Your task to perform on an android device: uninstall "NewsBreak: Local News & Alerts" Image 0: 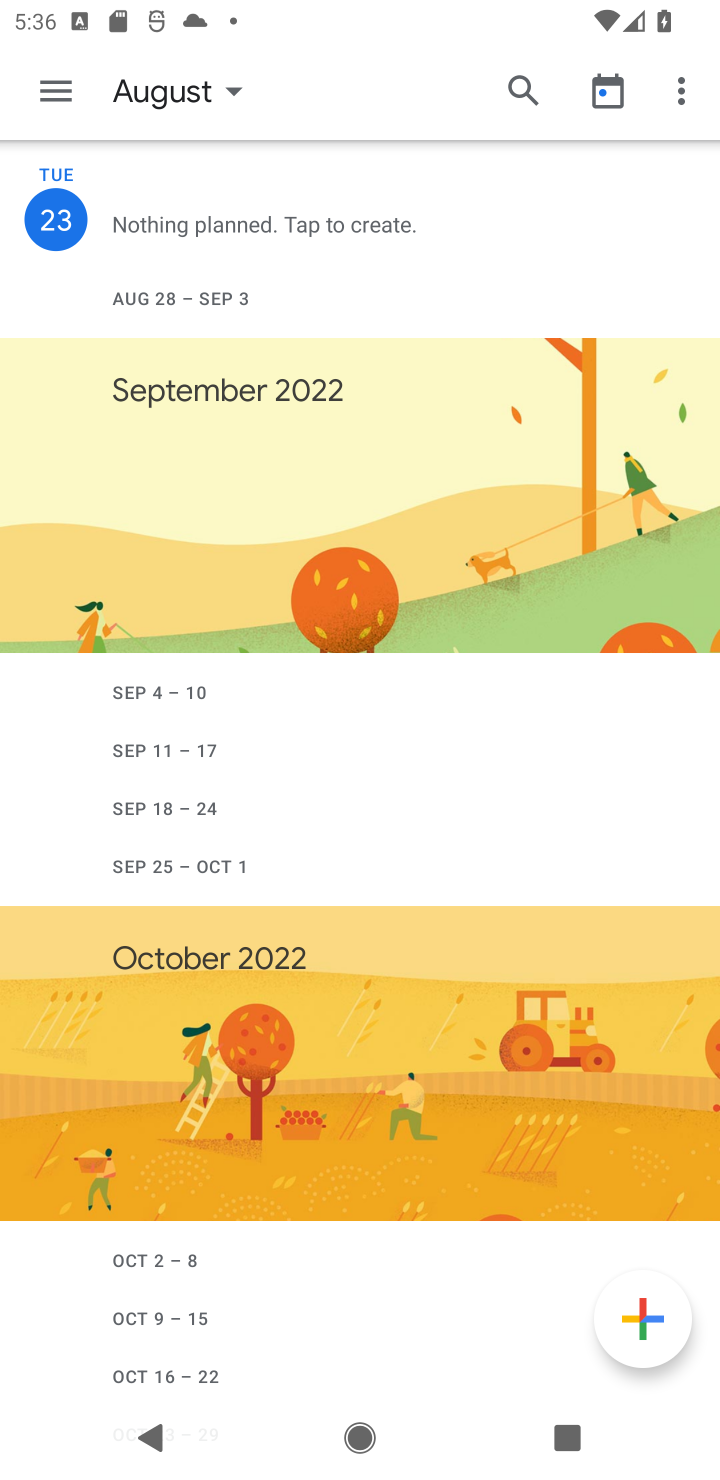
Step 0: press home button
Your task to perform on an android device: uninstall "NewsBreak: Local News & Alerts" Image 1: 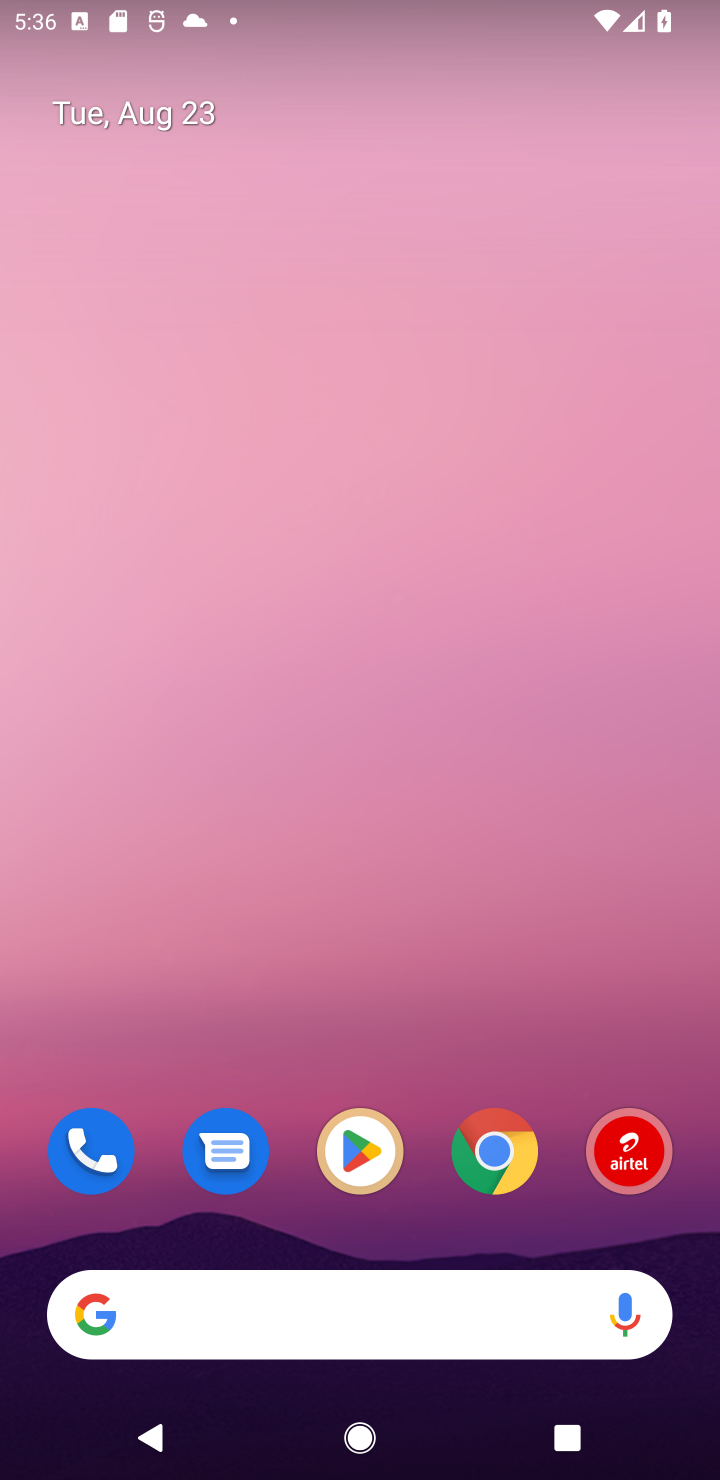
Step 1: click (363, 1147)
Your task to perform on an android device: uninstall "NewsBreak: Local News & Alerts" Image 2: 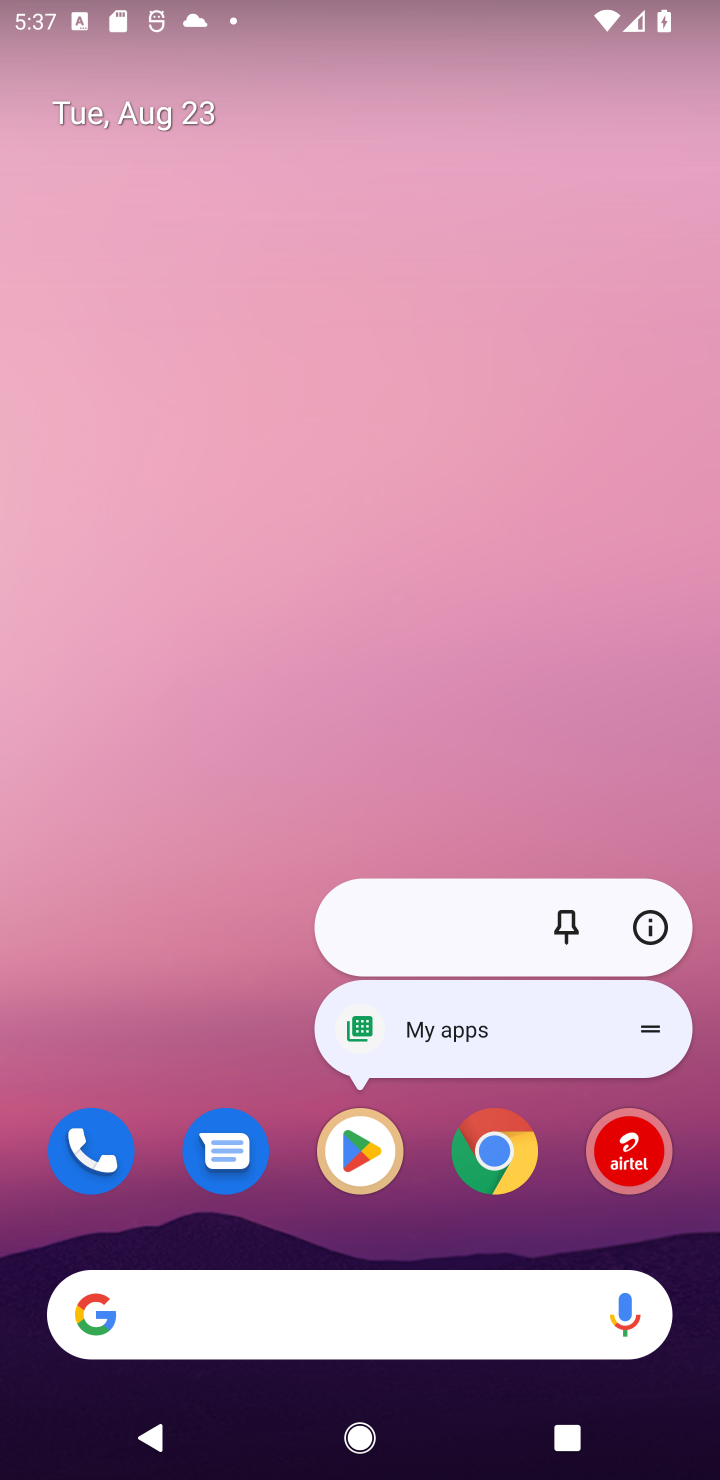
Step 2: click (363, 1154)
Your task to perform on an android device: uninstall "NewsBreak: Local News & Alerts" Image 3: 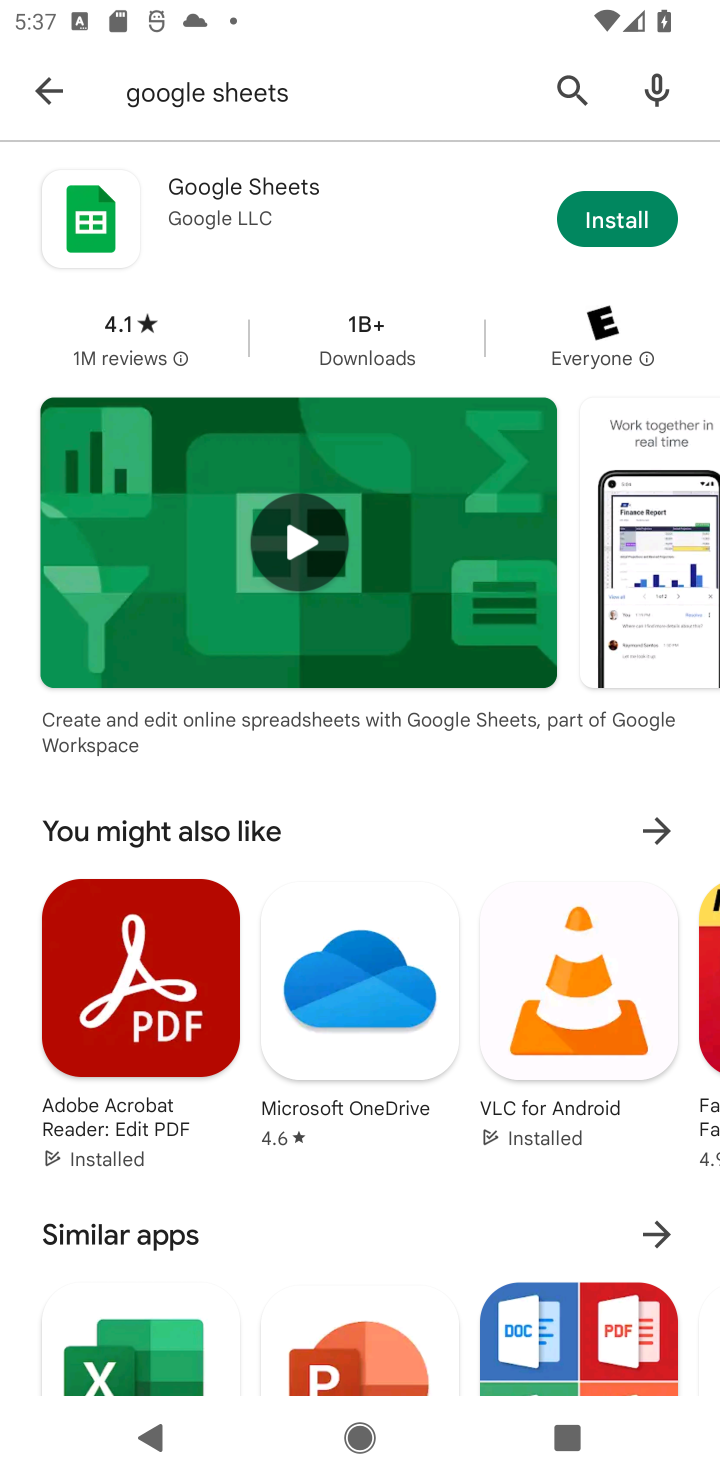
Step 3: click (567, 83)
Your task to perform on an android device: uninstall "NewsBreak: Local News & Alerts" Image 4: 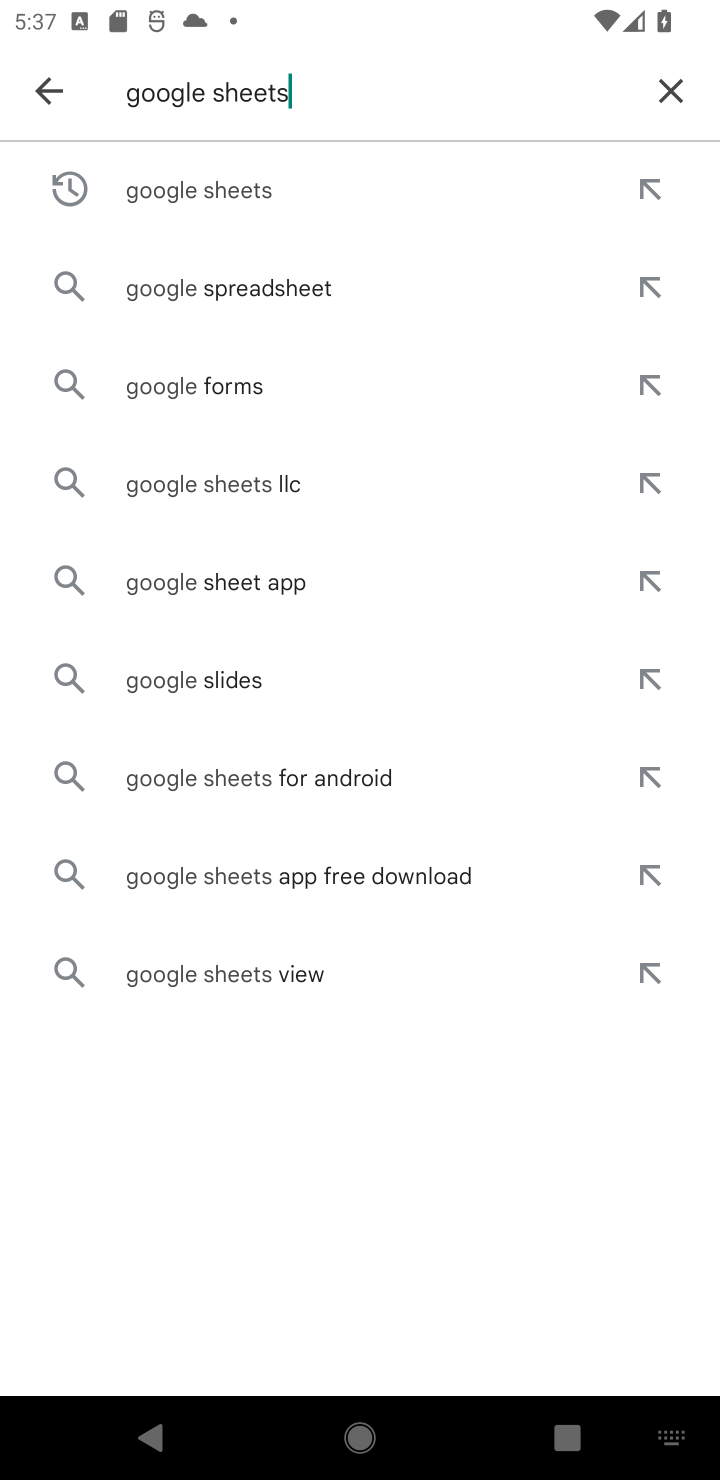
Step 4: click (678, 81)
Your task to perform on an android device: uninstall "NewsBreak: Local News & Alerts" Image 5: 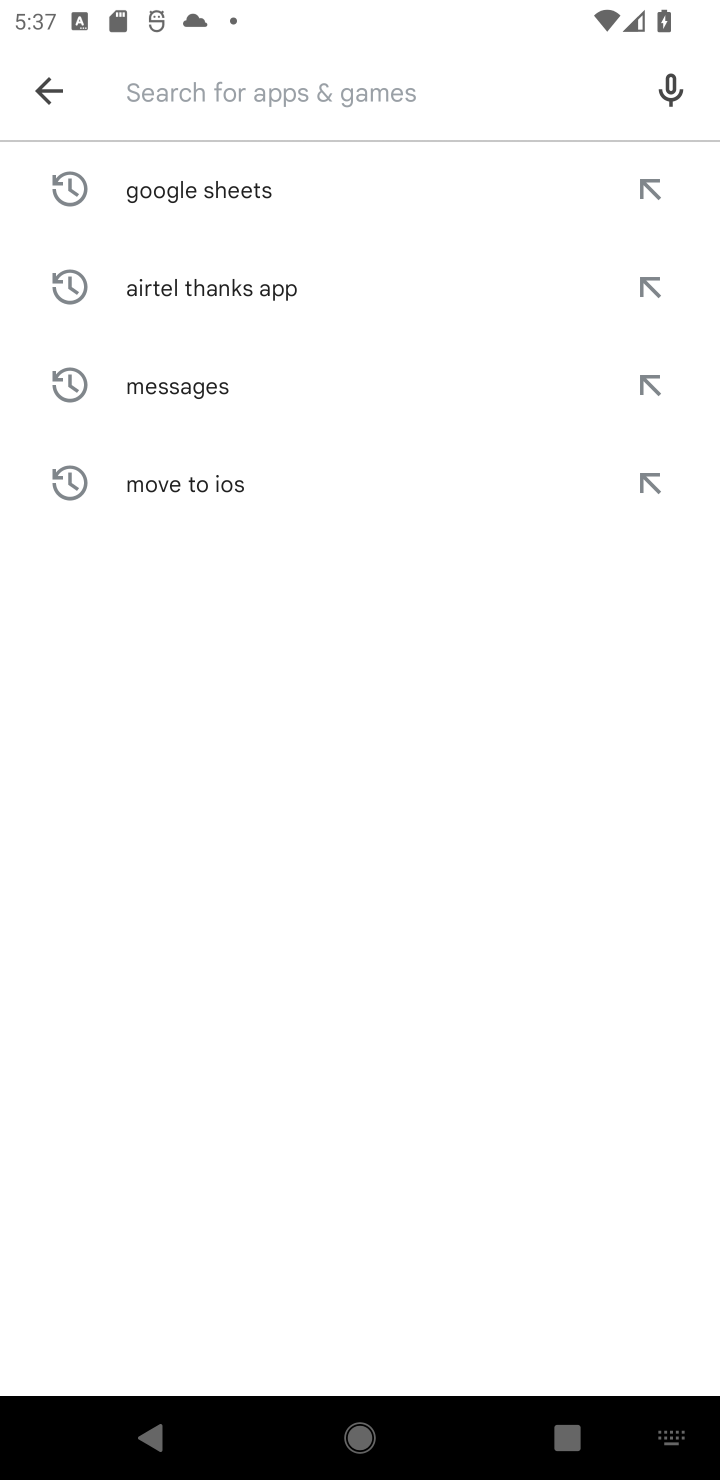
Step 5: type "NewsBreak: Local News & Alerts"
Your task to perform on an android device: uninstall "NewsBreak: Local News & Alerts" Image 6: 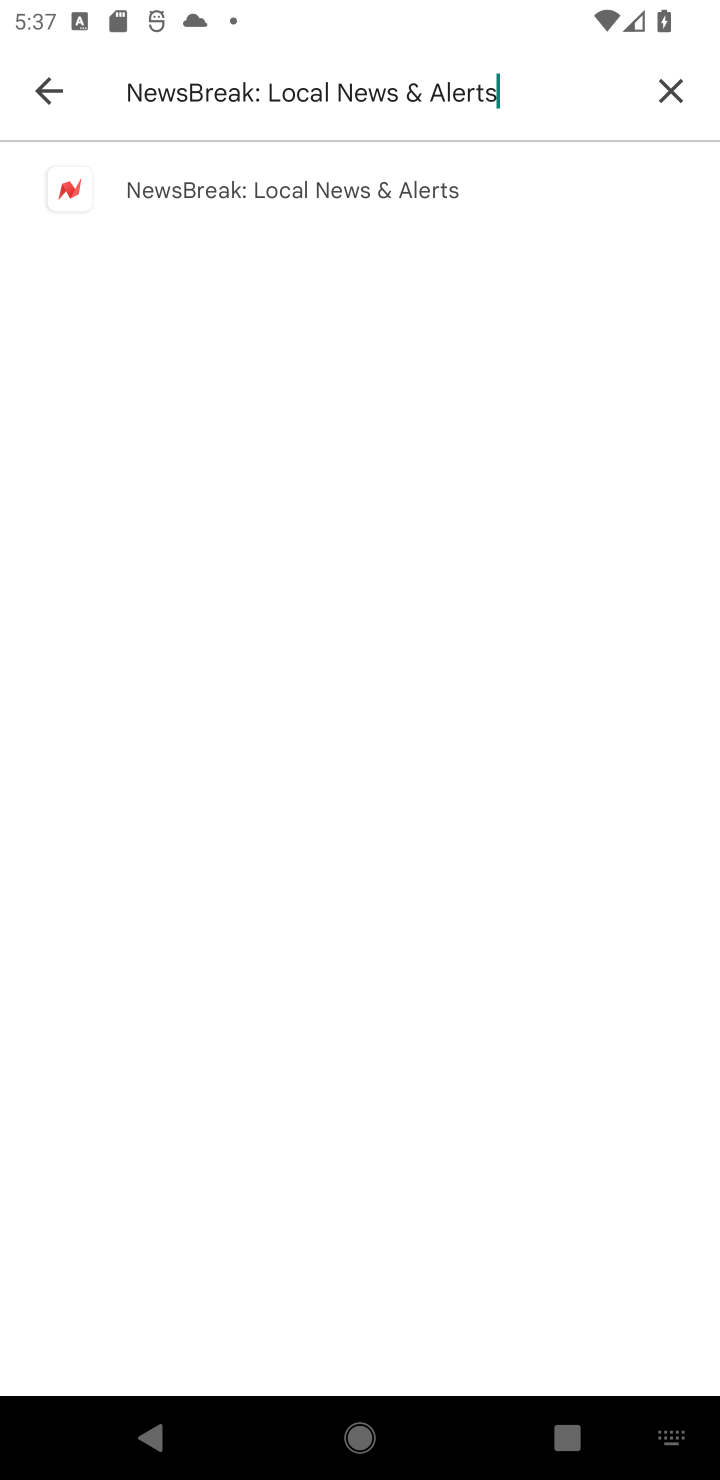
Step 6: click (423, 193)
Your task to perform on an android device: uninstall "NewsBreak: Local News & Alerts" Image 7: 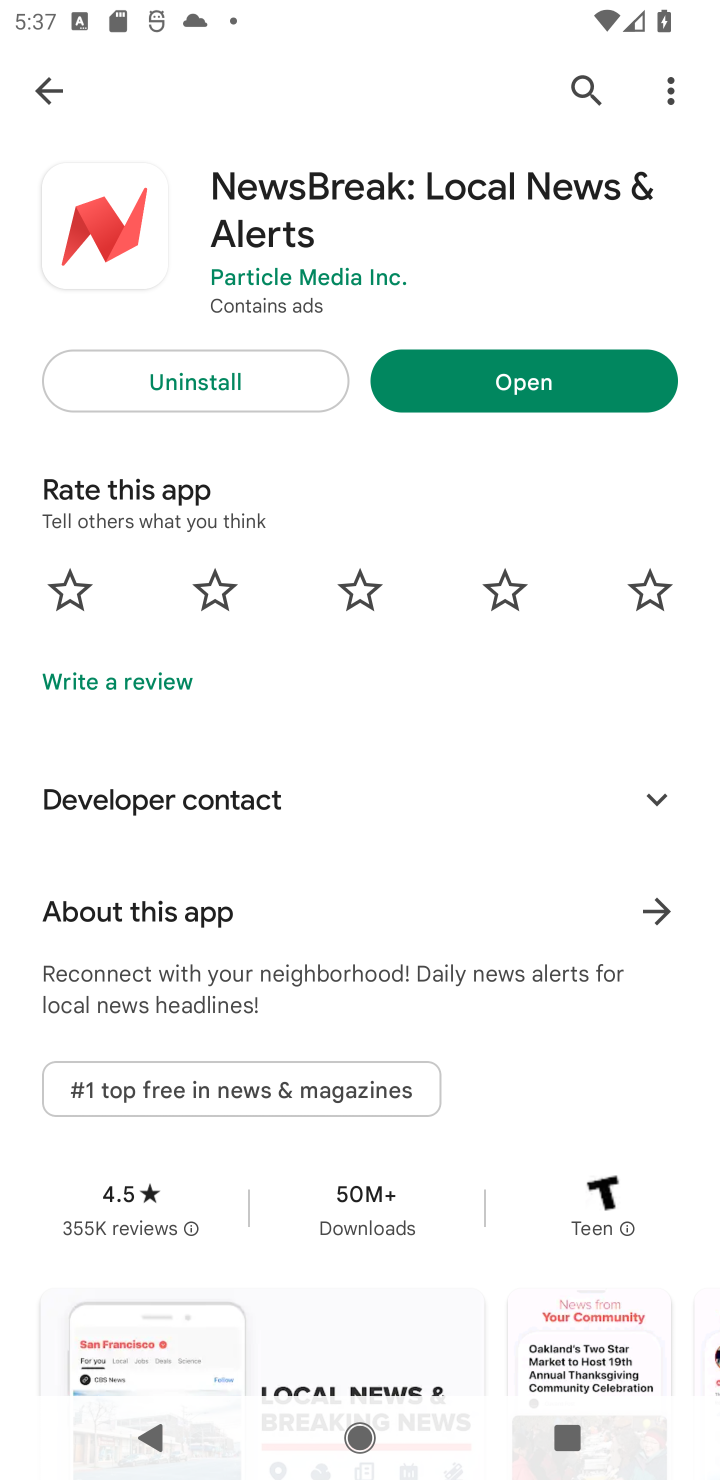
Step 7: click (199, 381)
Your task to perform on an android device: uninstall "NewsBreak: Local News & Alerts" Image 8: 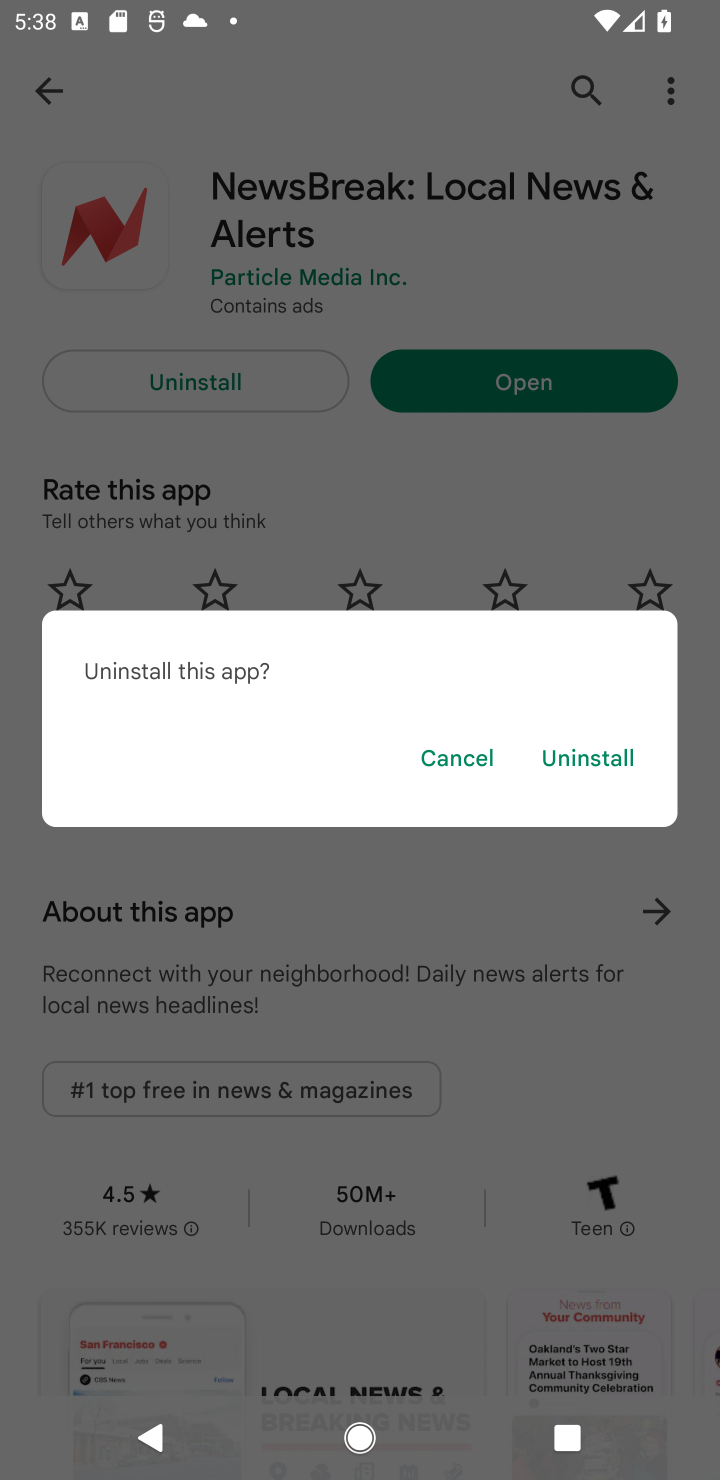
Step 8: click (561, 752)
Your task to perform on an android device: uninstall "NewsBreak: Local News & Alerts" Image 9: 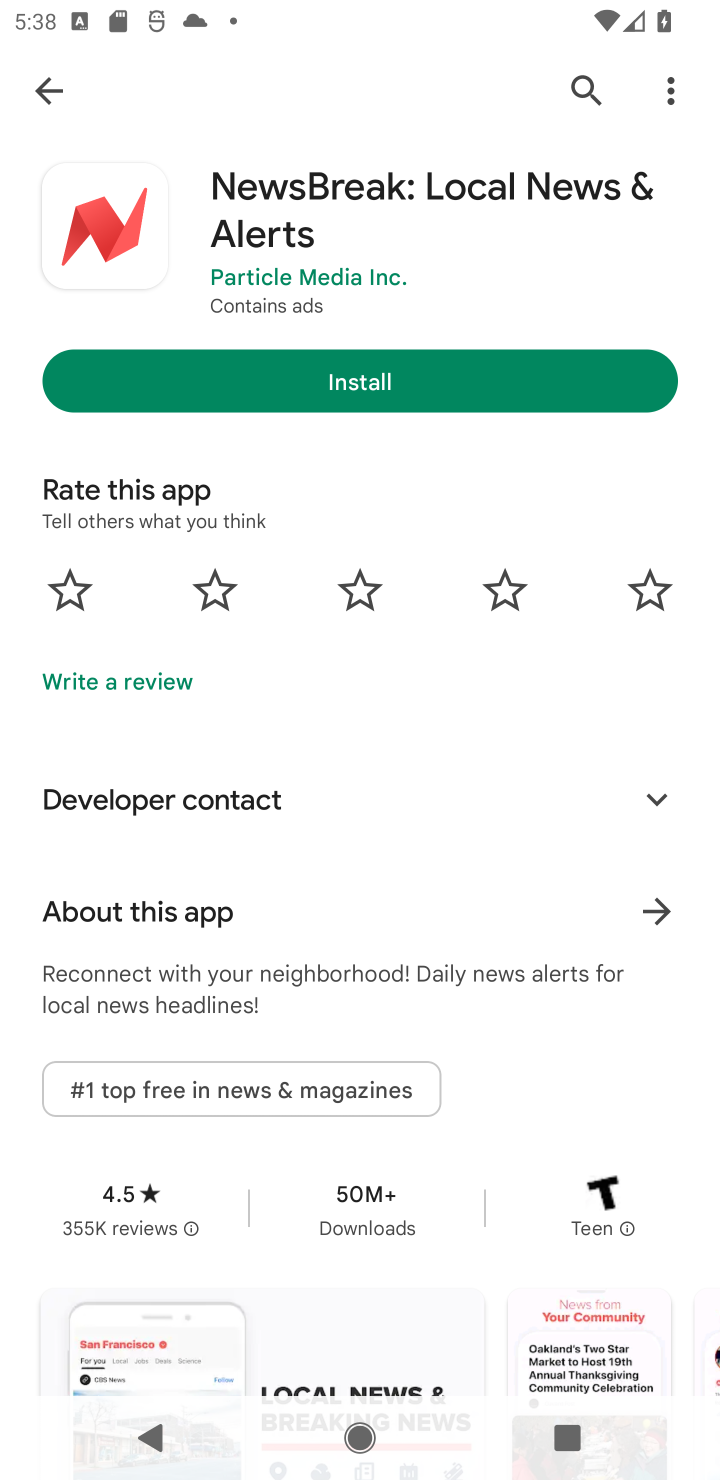
Step 9: task complete